Your task to perform on an android device: clear all cookies in the chrome app Image 0: 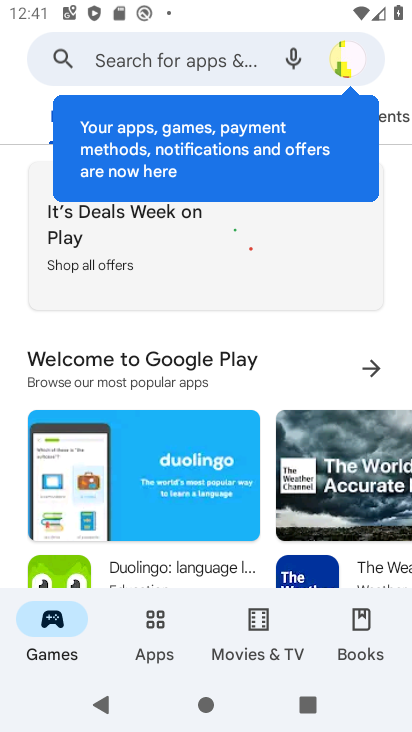
Step 0: press home button
Your task to perform on an android device: clear all cookies in the chrome app Image 1: 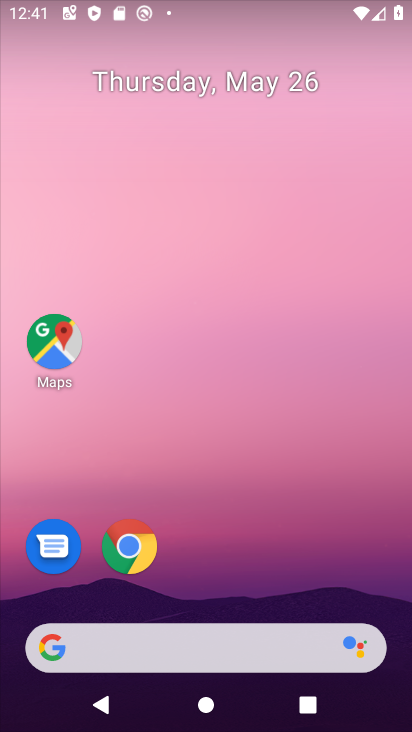
Step 1: click (135, 556)
Your task to perform on an android device: clear all cookies in the chrome app Image 2: 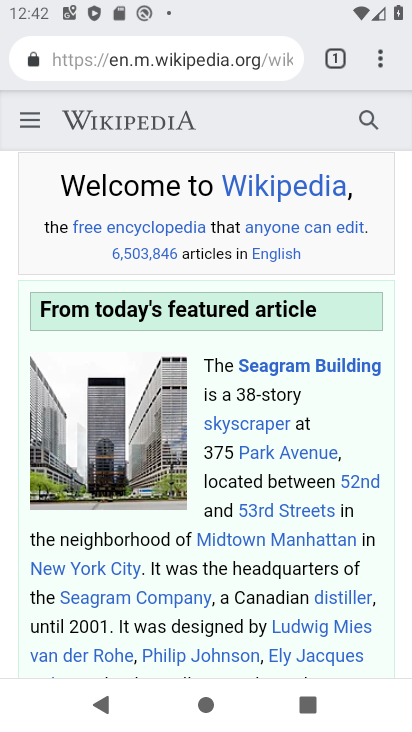
Step 2: drag from (385, 52) to (177, 572)
Your task to perform on an android device: clear all cookies in the chrome app Image 3: 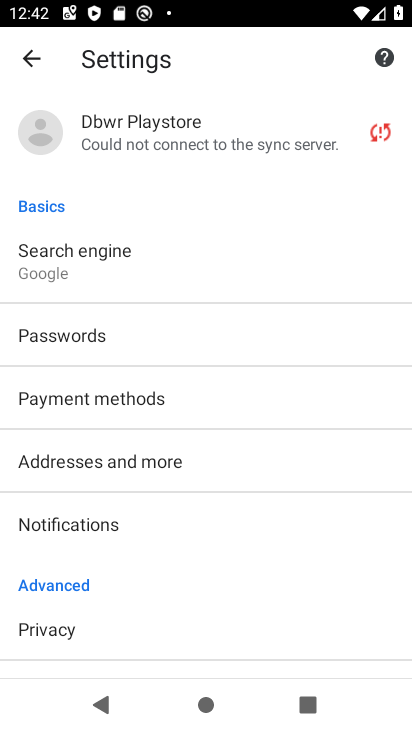
Step 3: drag from (189, 600) to (181, 134)
Your task to perform on an android device: clear all cookies in the chrome app Image 4: 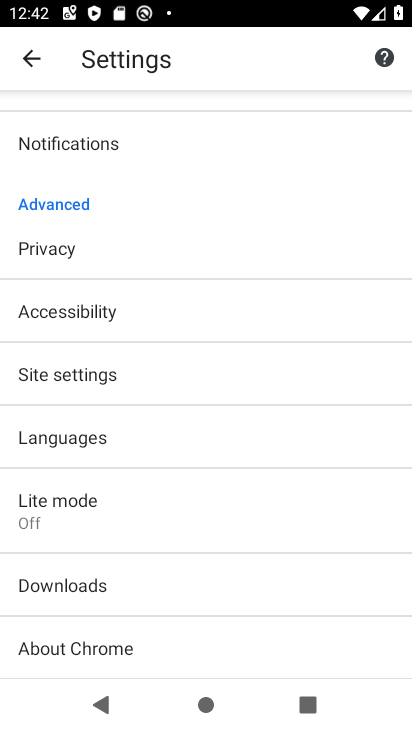
Step 4: click (74, 267)
Your task to perform on an android device: clear all cookies in the chrome app Image 5: 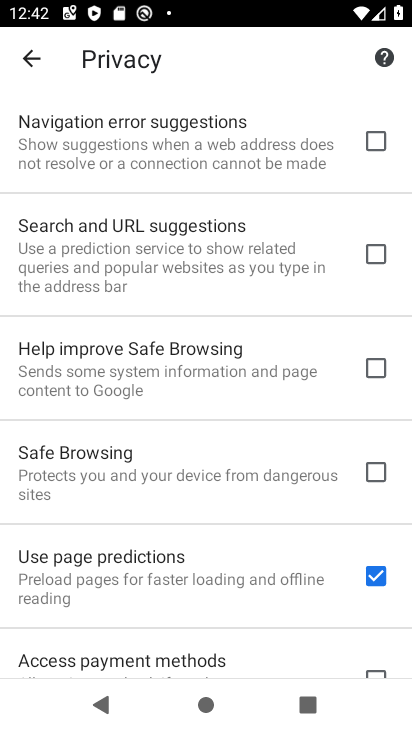
Step 5: drag from (167, 594) to (150, 183)
Your task to perform on an android device: clear all cookies in the chrome app Image 6: 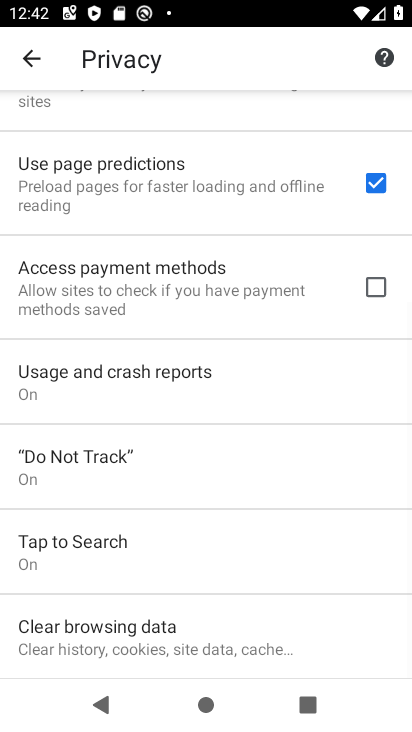
Step 6: drag from (143, 582) to (177, 158)
Your task to perform on an android device: clear all cookies in the chrome app Image 7: 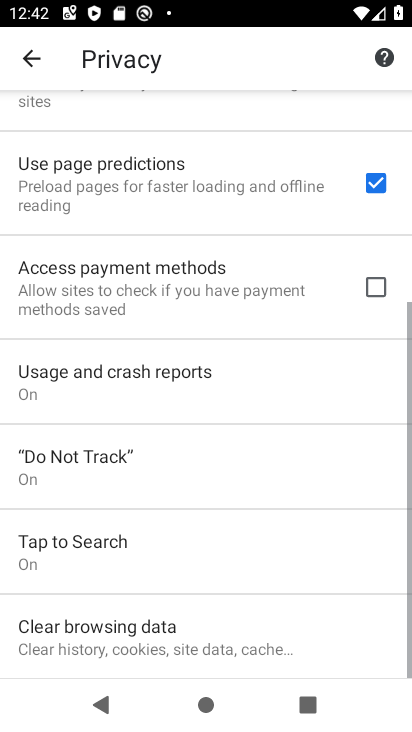
Step 7: click (193, 611)
Your task to perform on an android device: clear all cookies in the chrome app Image 8: 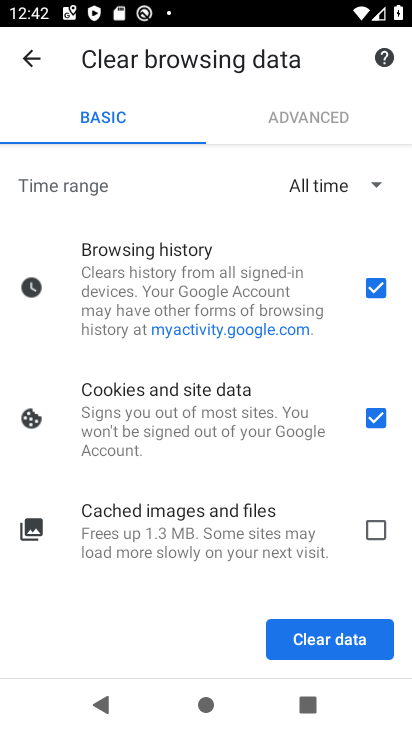
Step 8: click (275, 639)
Your task to perform on an android device: clear all cookies in the chrome app Image 9: 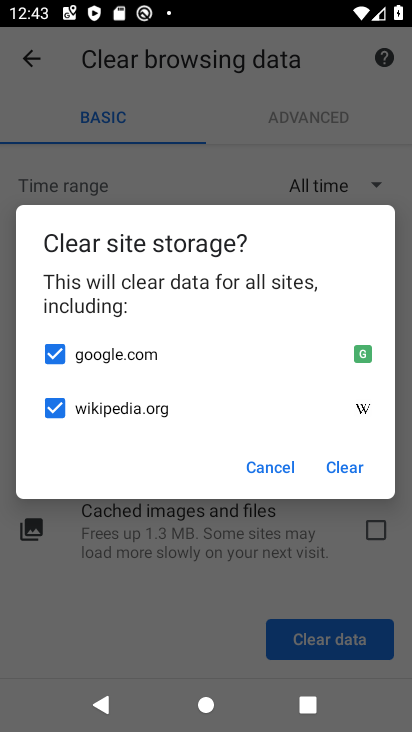
Step 9: click (342, 467)
Your task to perform on an android device: clear all cookies in the chrome app Image 10: 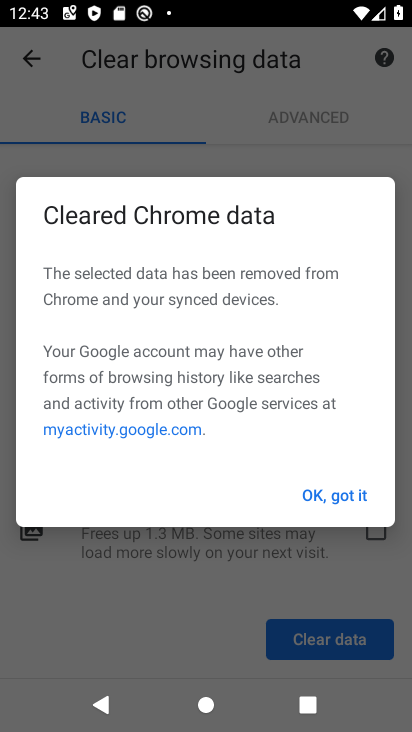
Step 10: click (333, 499)
Your task to perform on an android device: clear all cookies in the chrome app Image 11: 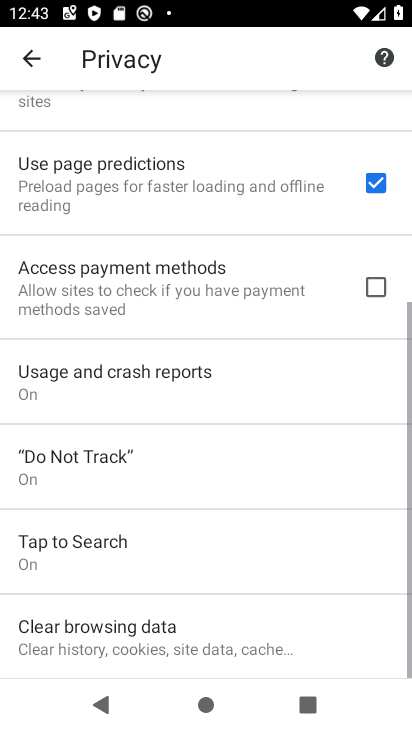
Step 11: task complete